Your task to perform on an android device: Search for sushi restaurants on Maps Image 0: 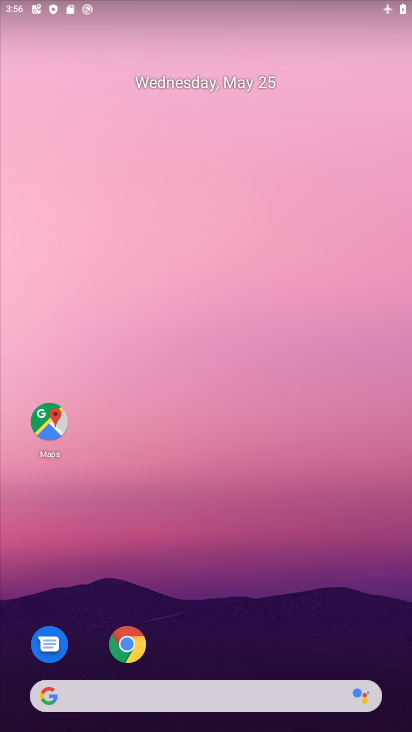
Step 0: click (46, 423)
Your task to perform on an android device: Search for sushi restaurants on Maps Image 1: 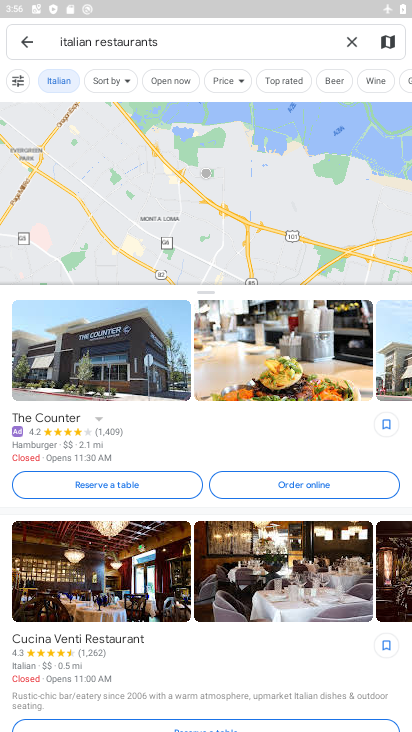
Step 1: click (352, 37)
Your task to perform on an android device: Search for sushi restaurants on Maps Image 2: 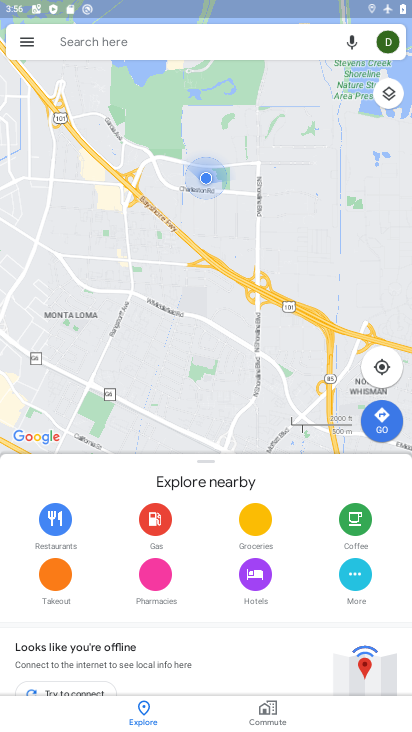
Step 2: click (81, 44)
Your task to perform on an android device: Search for sushi restaurants on Maps Image 3: 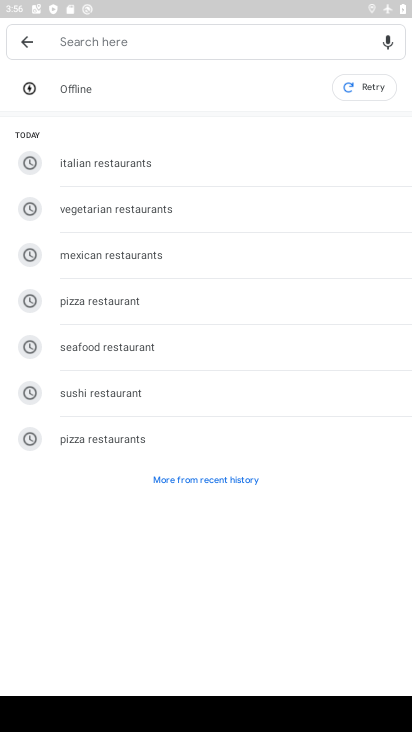
Step 3: type "sushi restaurants"
Your task to perform on an android device: Search for sushi restaurants on Maps Image 4: 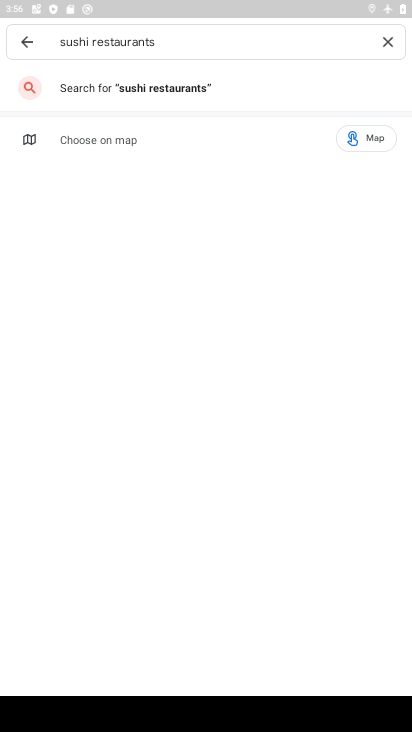
Step 4: click (130, 90)
Your task to perform on an android device: Search for sushi restaurants on Maps Image 5: 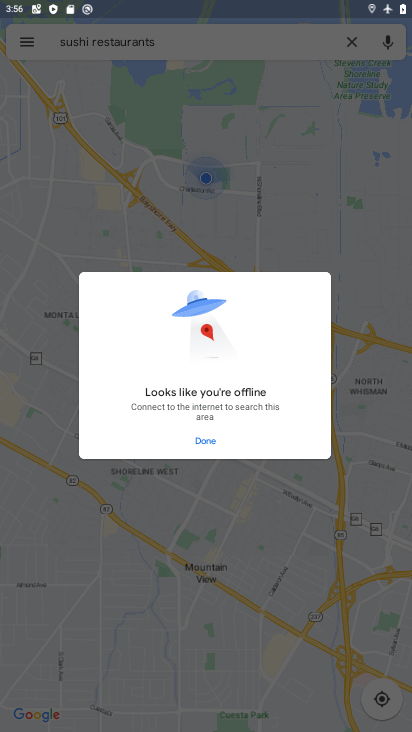
Step 5: task complete